Your task to perform on an android device: Open the map Image 0: 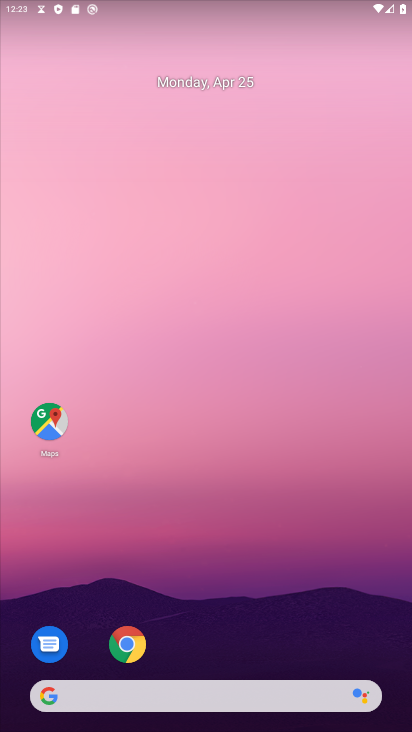
Step 0: click (43, 422)
Your task to perform on an android device: Open the map Image 1: 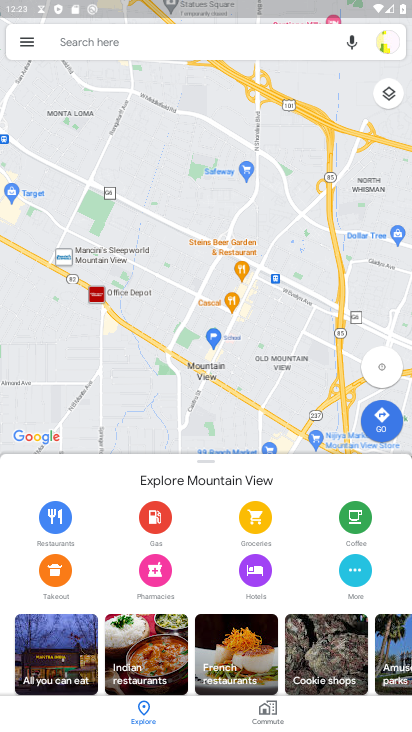
Step 1: task complete